Your task to perform on an android device: Show me recent news Image 0: 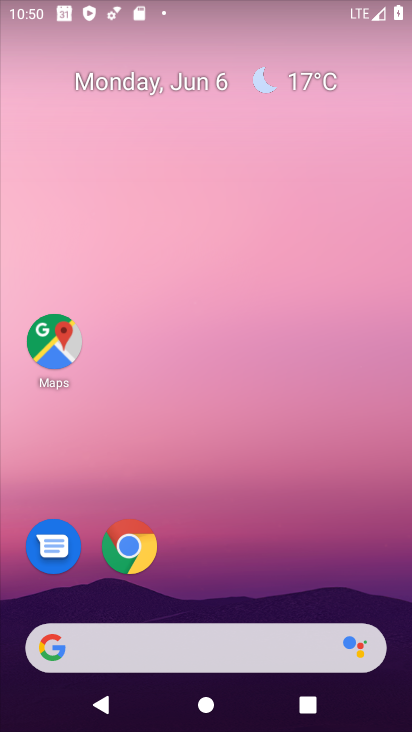
Step 0: drag from (311, 520) to (273, 74)
Your task to perform on an android device: Show me recent news Image 1: 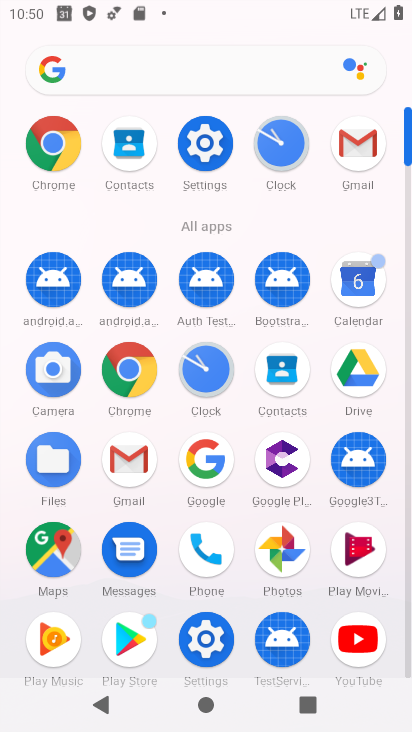
Step 1: click (58, 146)
Your task to perform on an android device: Show me recent news Image 2: 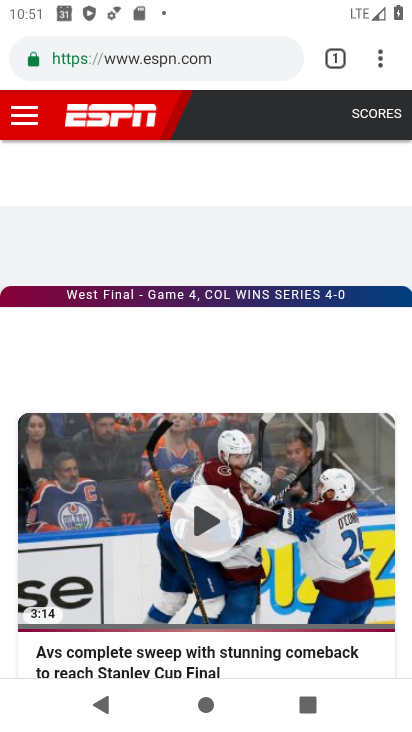
Step 2: click (185, 50)
Your task to perform on an android device: Show me recent news Image 3: 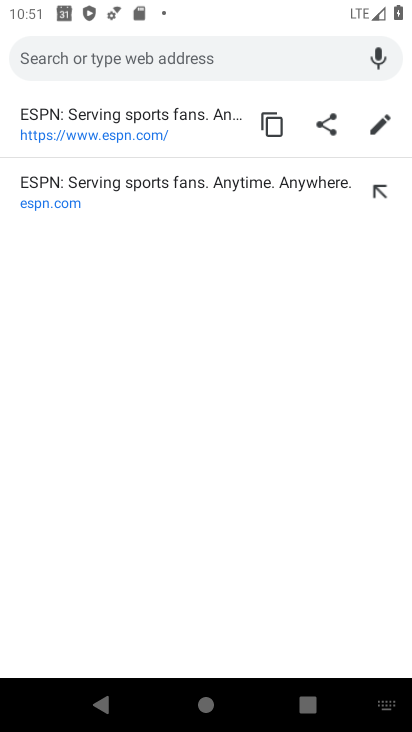
Step 3: type "news"
Your task to perform on an android device: Show me recent news Image 4: 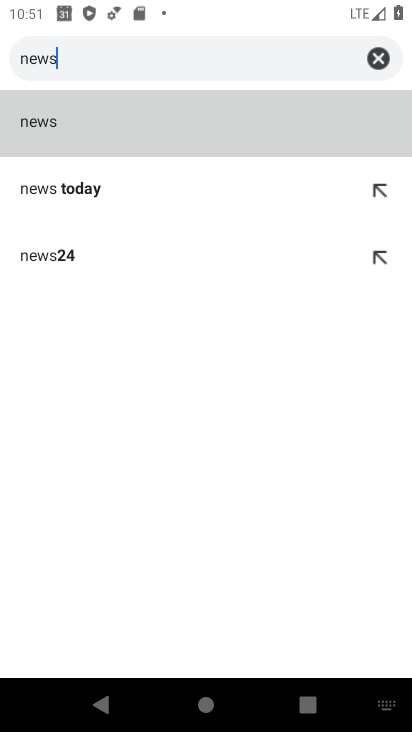
Step 4: click (66, 114)
Your task to perform on an android device: Show me recent news Image 5: 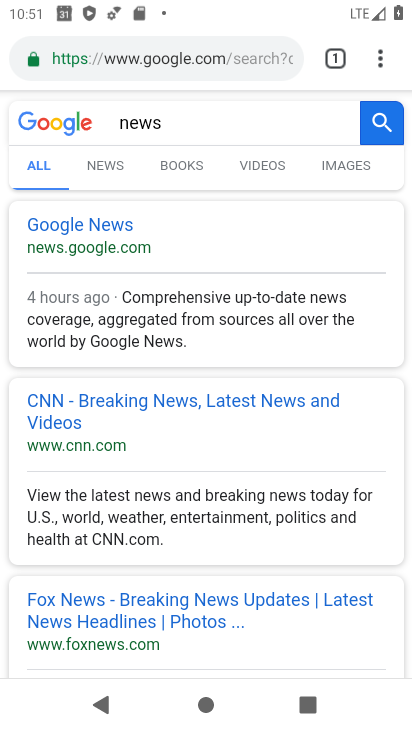
Step 5: click (118, 172)
Your task to perform on an android device: Show me recent news Image 6: 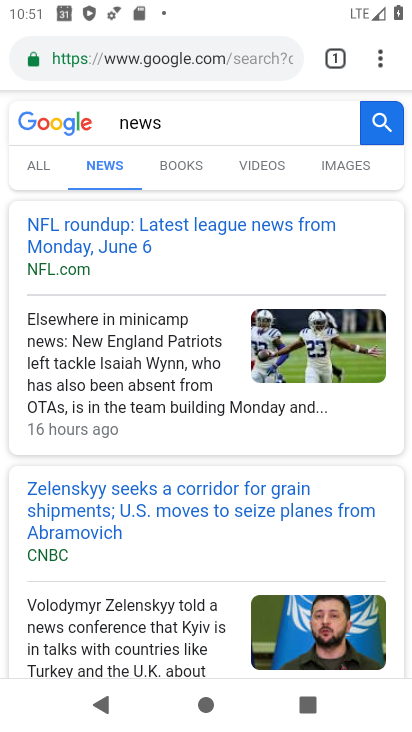
Step 6: task complete